Your task to perform on an android device: Check the news Image 0: 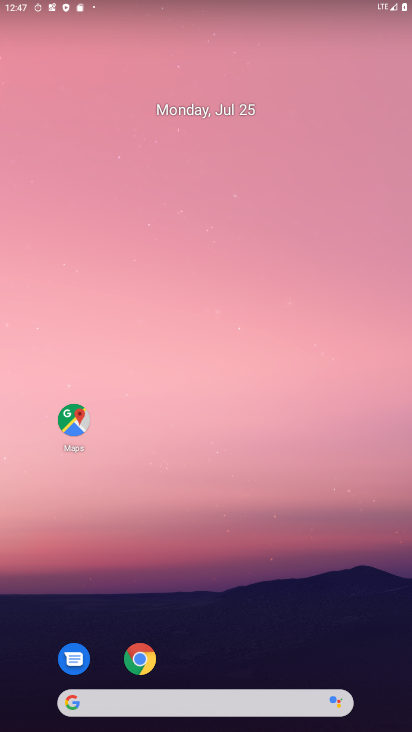
Step 0: click (128, 705)
Your task to perform on an android device: Check the news Image 1: 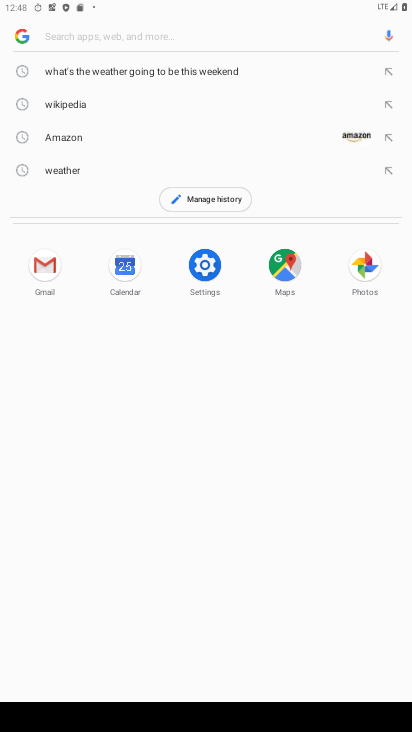
Step 1: type "news"
Your task to perform on an android device: Check the news Image 2: 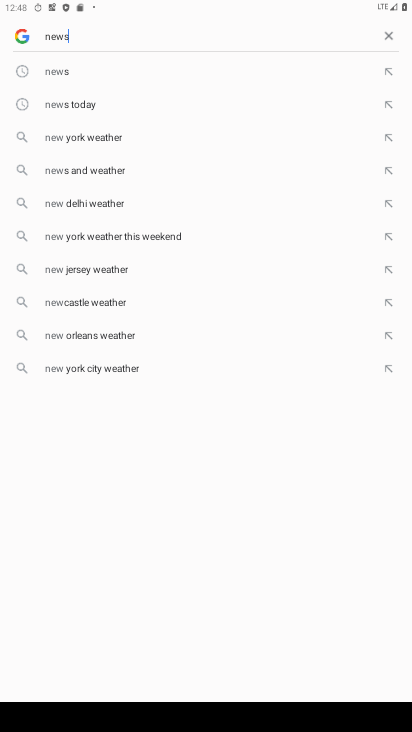
Step 2: type ""
Your task to perform on an android device: Check the news Image 3: 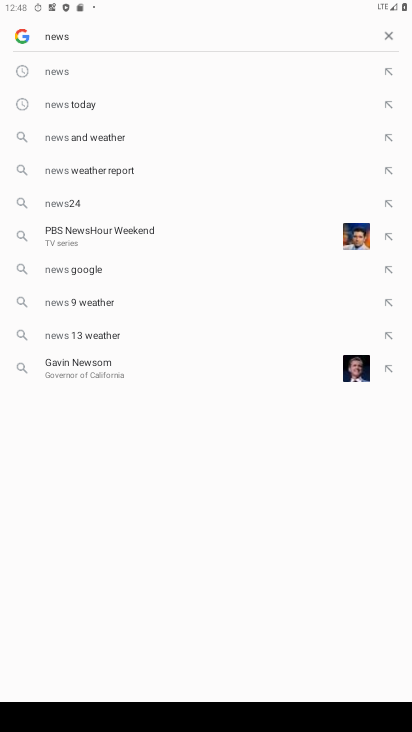
Step 3: task complete